Your task to perform on an android device: Do I have any events tomorrow? Image 0: 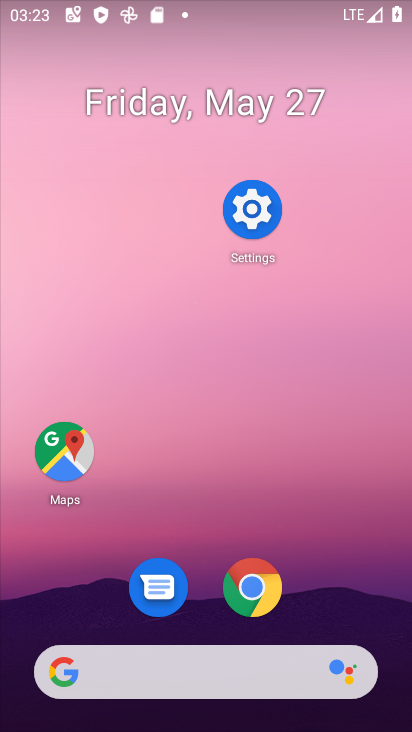
Step 0: drag from (323, 172) to (315, 109)
Your task to perform on an android device: Do I have any events tomorrow? Image 1: 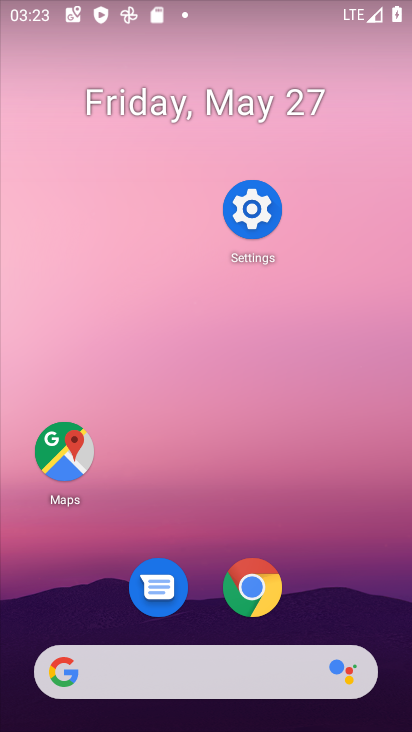
Step 1: drag from (334, 618) to (369, 147)
Your task to perform on an android device: Do I have any events tomorrow? Image 2: 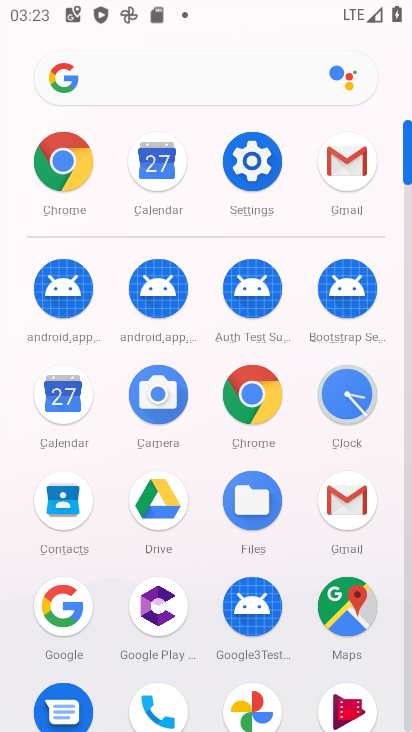
Step 2: click (57, 393)
Your task to perform on an android device: Do I have any events tomorrow? Image 3: 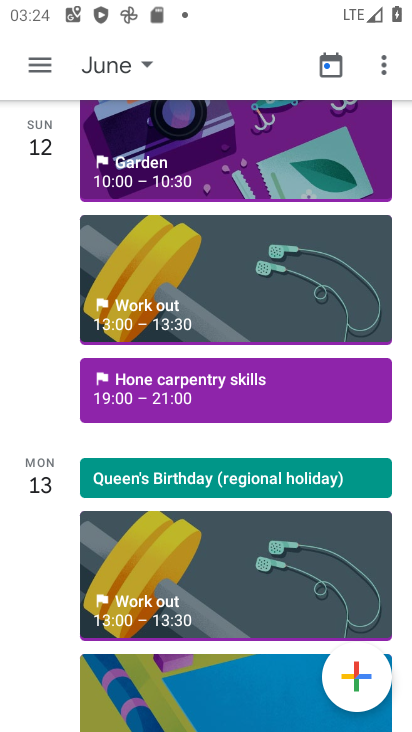
Step 3: click (36, 63)
Your task to perform on an android device: Do I have any events tomorrow? Image 4: 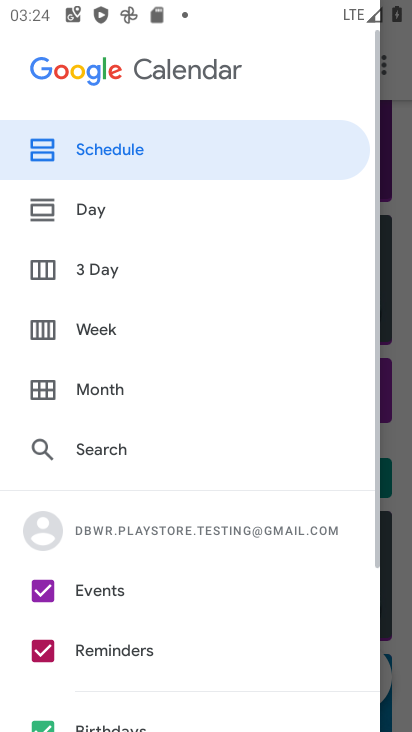
Step 4: click (111, 150)
Your task to perform on an android device: Do I have any events tomorrow? Image 5: 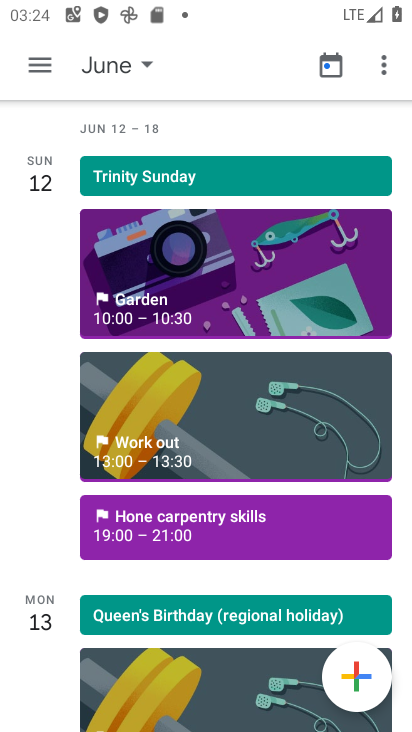
Step 5: task complete